Your task to perform on an android device: What's the price of the new iPhone Image 0: 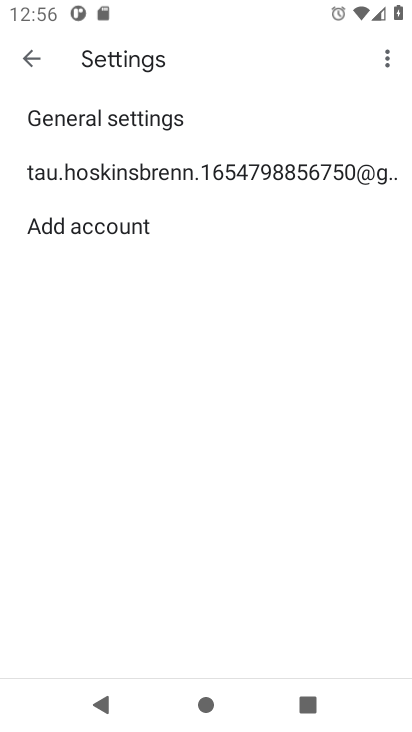
Step 0: press home button
Your task to perform on an android device: What's the price of the new iPhone Image 1: 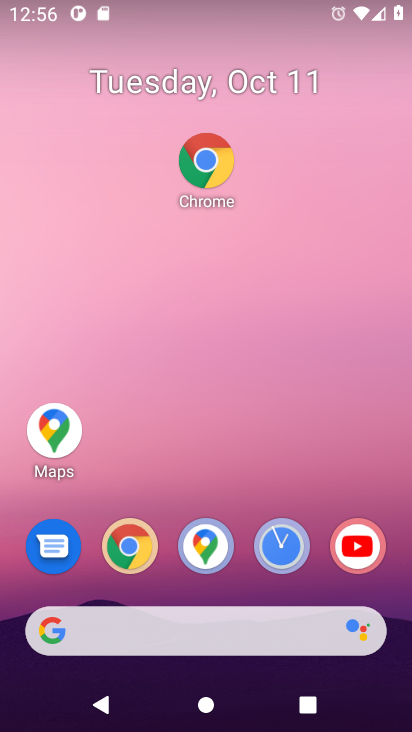
Step 1: click (125, 550)
Your task to perform on an android device: What's the price of the new iPhone Image 2: 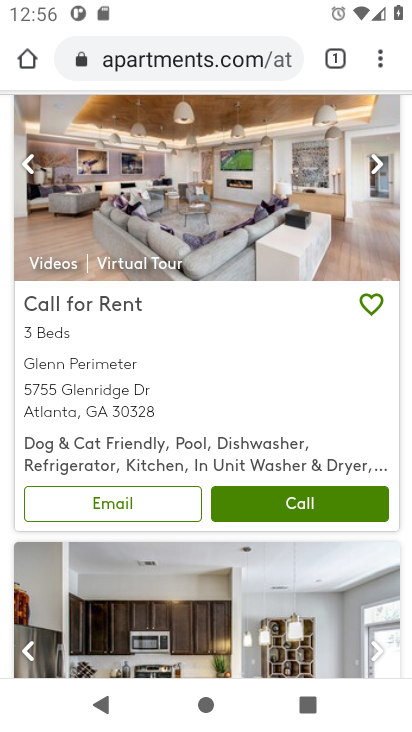
Step 2: click (217, 61)
Your task to perform on an android device: What's the price of the new iPhone Image 3: 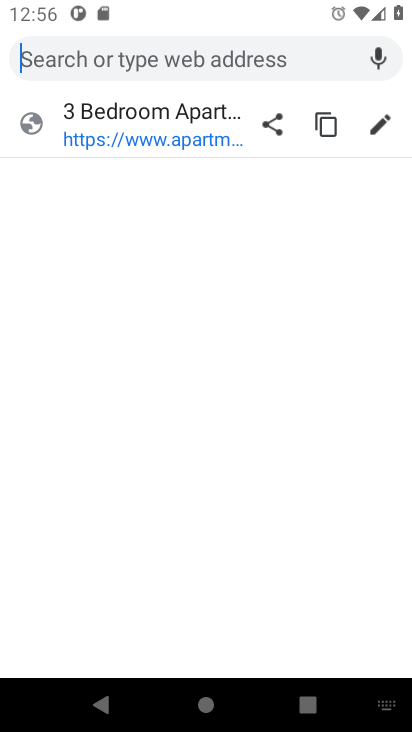
Step 3: type "price of the new iPhone"
Your task to perform on an android device: What's the price of the new iPhone Image 4: 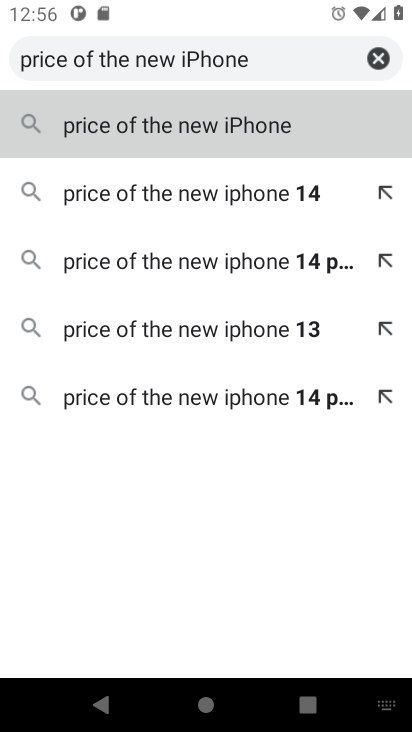
Step 4: press enter
Your task to perform on an android device: What's the price of the new iPhone Image 5: 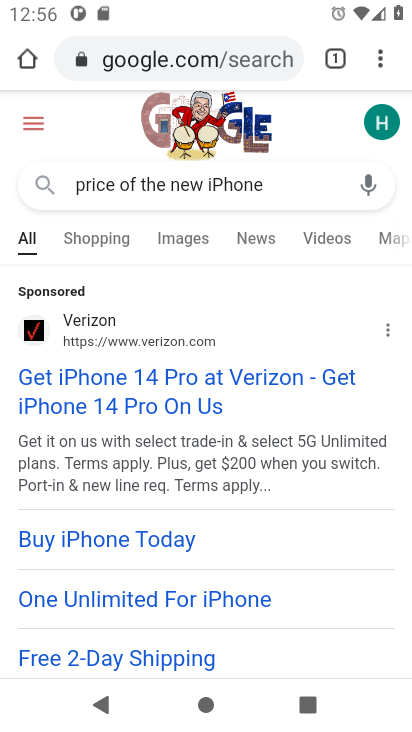
Step 5: click (114, 237)
Your task to perform on an android device: What's the price of the new iPhone Image 6: 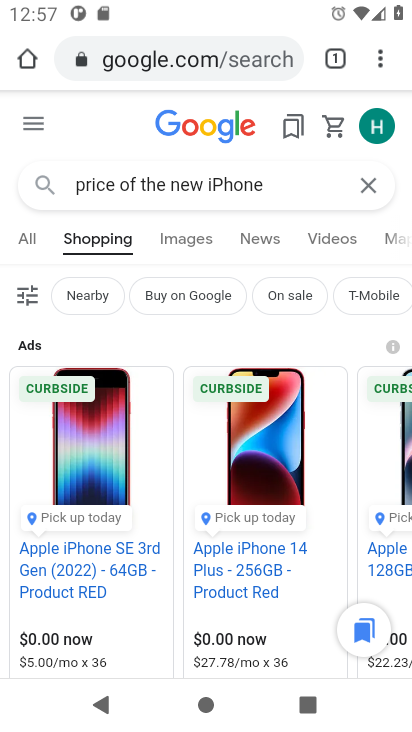
Step 6: task complete